Your task to perform on an android device: When is my next meeting? Image 0: 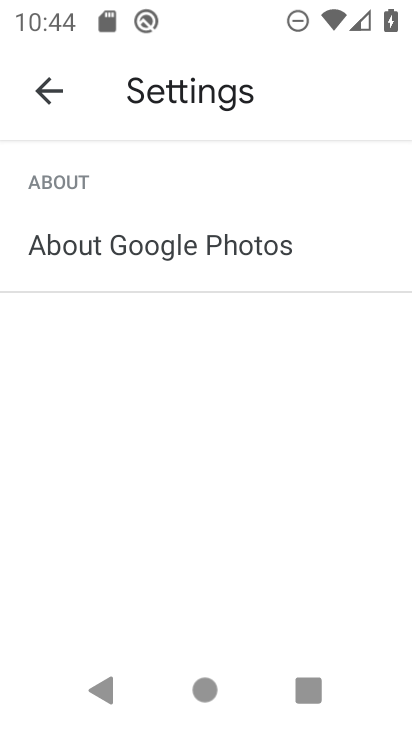
Step 0: press home button
Your task to perform on an android device: When is my next meeting? Image 1: 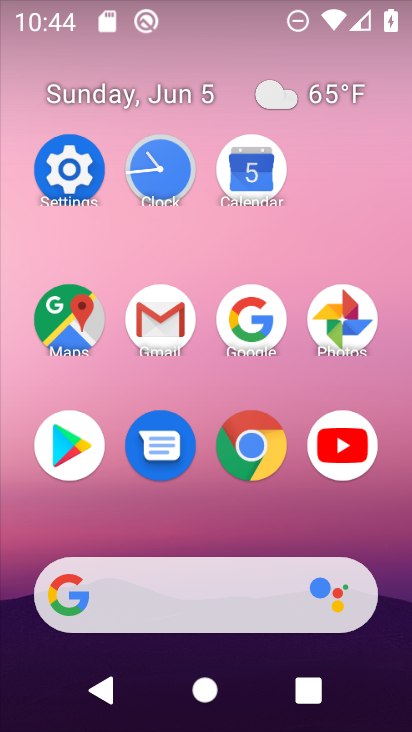
Step 1: click (246, 147)
Your task to perform on an android device: When is my next meeting? Image 2: 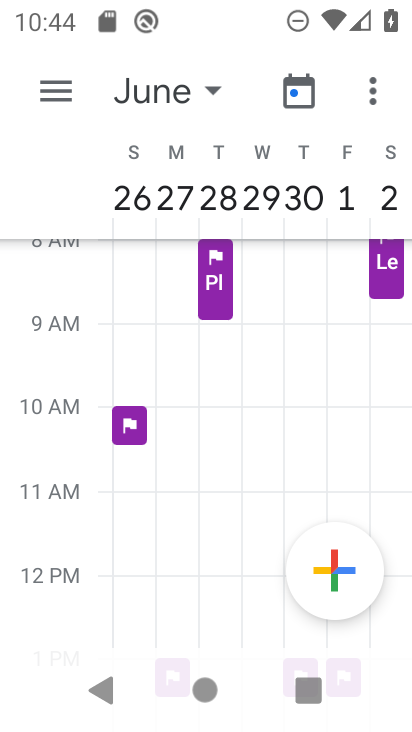
Step 2: task complete